Your task to perform on an android device: turn smart compose on in the gmail app Image 0: 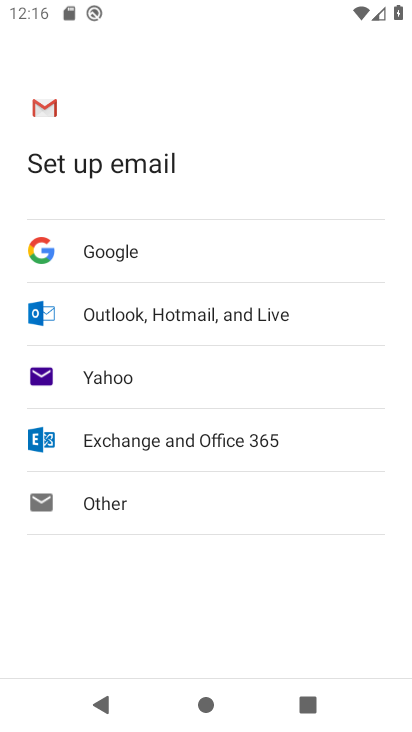
Step 0: press home button
Your task to perform on an android device: turn smart compose on in the gmail app Image 1: 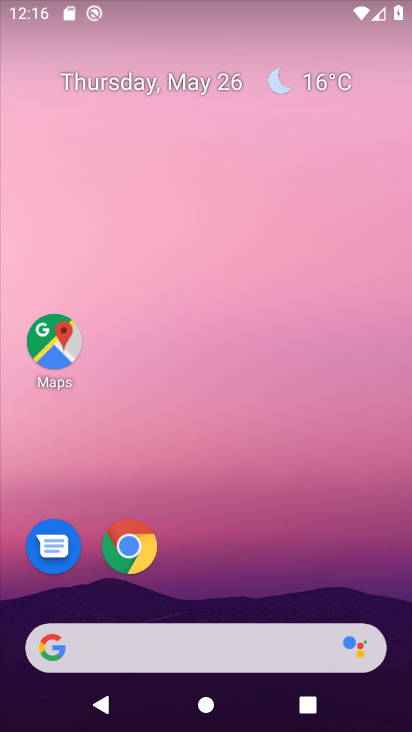
Step 1: click (261, 225)
Your task to perform on an android device: turn smart compose on in the gmail app Image 2: 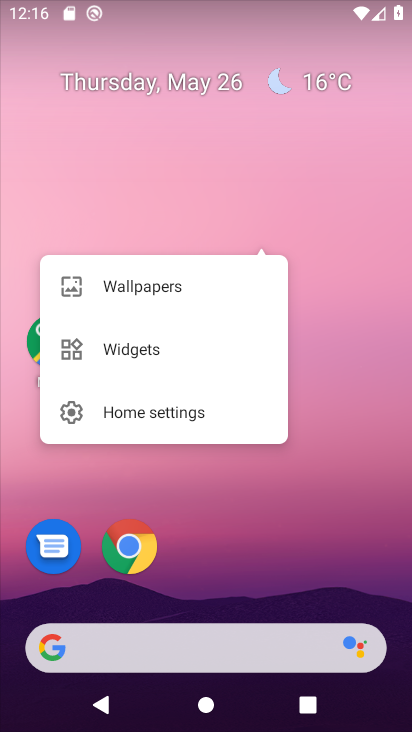
Step 2: click (173, 545)
Your task to perform on an android device: turn smart compose on in the gmail app Image 3: 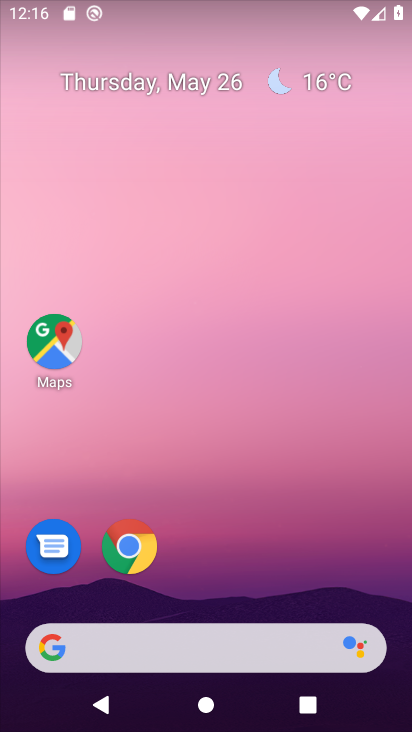
Step 3: drag from (173, 540) to (251, 179)
Your task to perform on an android device: turn smart compose on in the gmail app Image 4: 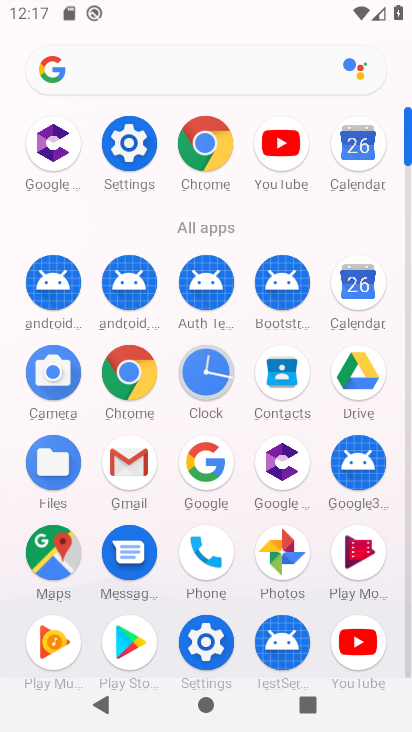
Step 4: click (125, 461)
Your task to perform on an android device: turn smart compose on in the gmail app Image 5: 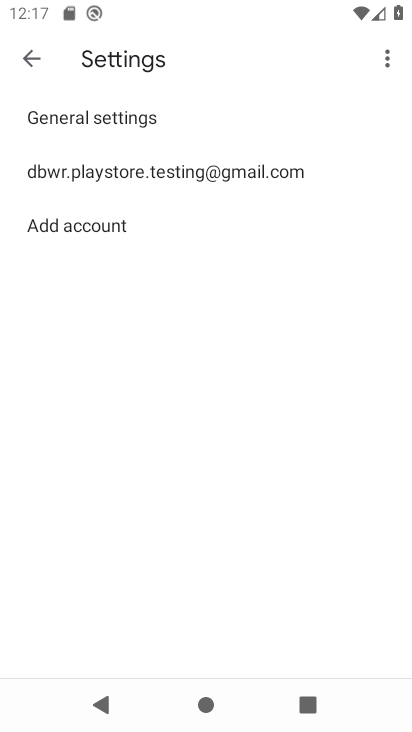
Step 5: click (136, 157)
Your task to perform on an android device: turn smart compose on in the gmail app Image 6: 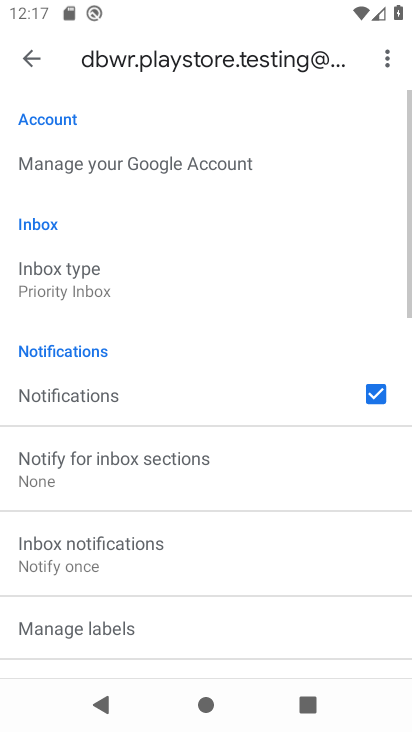
Step 6: click (33, 62)
Your task to perform on an android device: turn smart compose on in the gmail app Image 7: 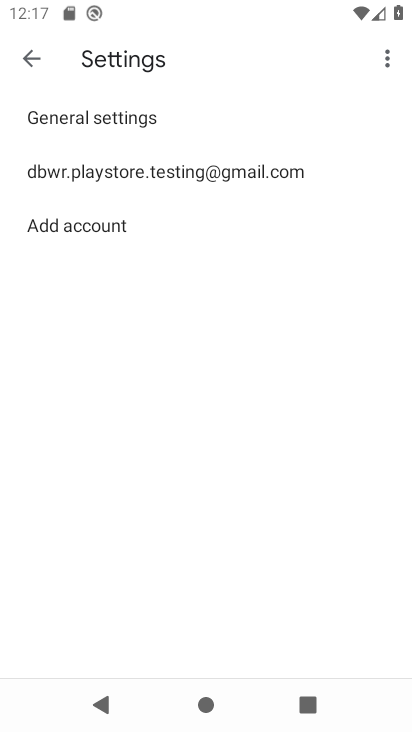
Step 7: click (33, 62)
Your task to perform on an android device: turn smart compose on in the gmail app Image 8: 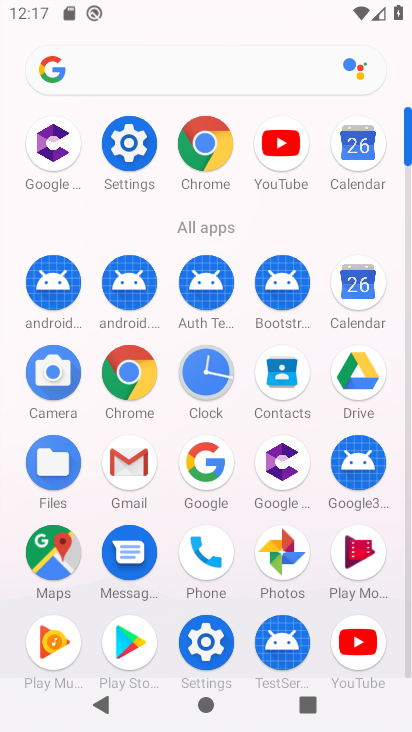
Step 8: click (119, 457)
Your task to perform on an android device: turn smart compose on in the gmail app Image 9: 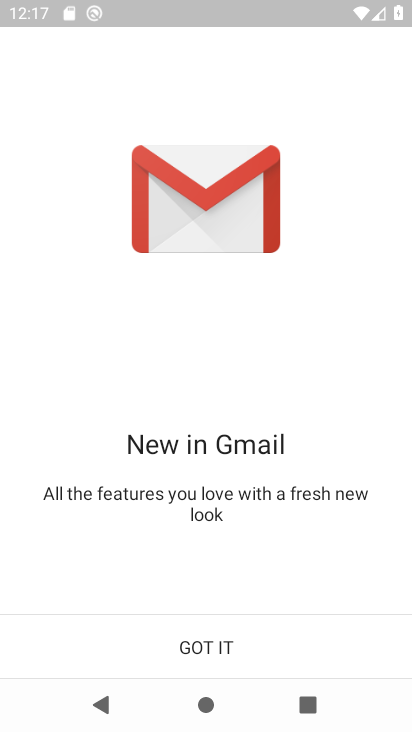
Step 9: click (193, 643)
Your task to perform on an android device: turn smart compose on in the gmail app Image 10: 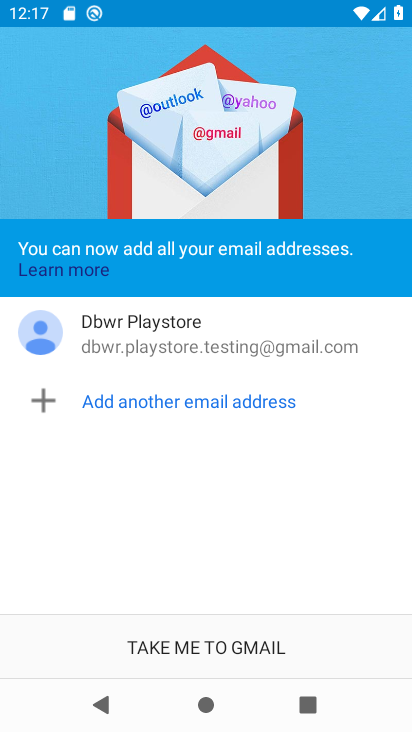
Step 10: click (233, 636)
Your task to perform on an android device: turn smart compose on in the gmail app Image 11: 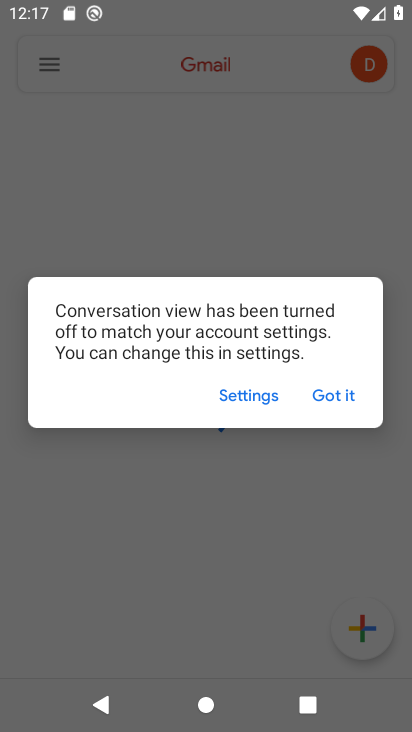
Step 11: click (319, 396)
Your task to perform on an android device: turn smart compose on in the gmail app Image 12: 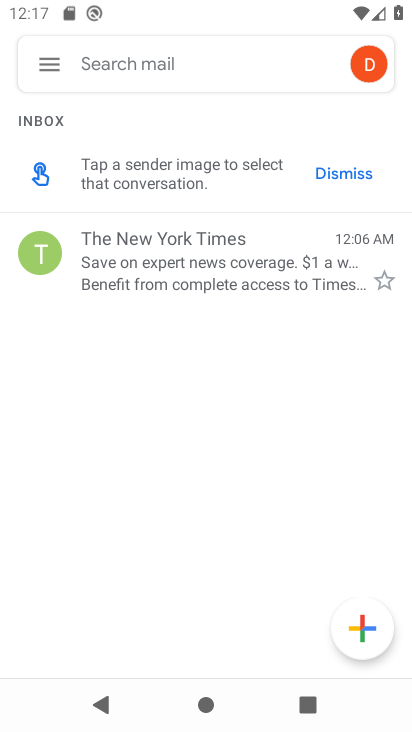
Step 12: click (48, 62)
Your task to perform on an android device: turn smart compose on in the gmail app Image 13: 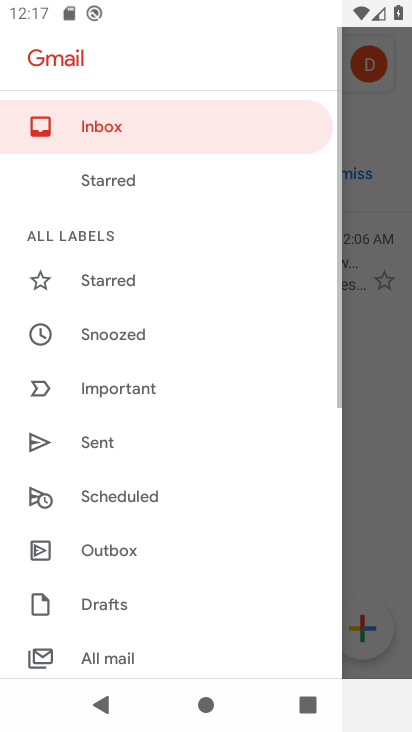
Step 13: drag from (122, 630) to (186, 197)
Your task to perform on an android device: turn smart compose on in the gmail app Image 14: 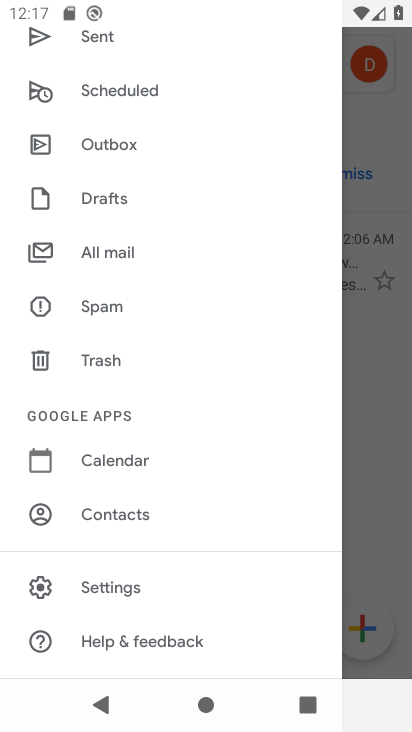
Step 14: click (94, 588)
Your task to perform on an android device: turn smart compose on in the gmail app Image 15: 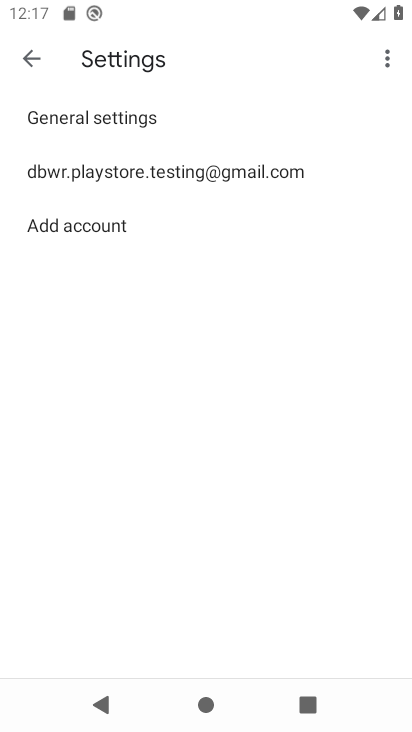
Step 15: click (98, 183)
Your task to perform on an android device: turn smart compose on in the gmail app Image 16: 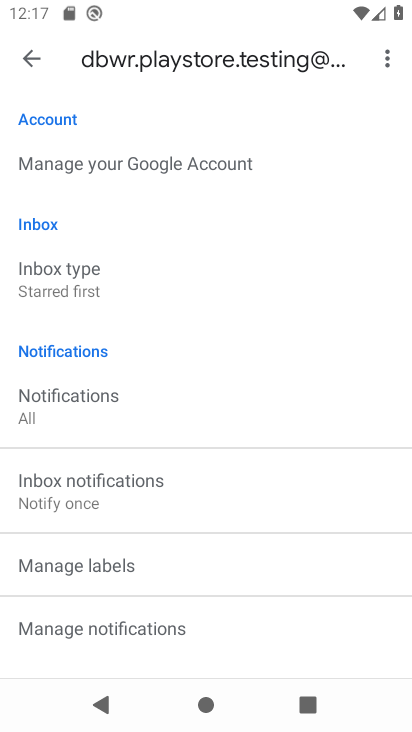
Step 16: task complete